Your task to perform on an android device: change timer sound Image 0: 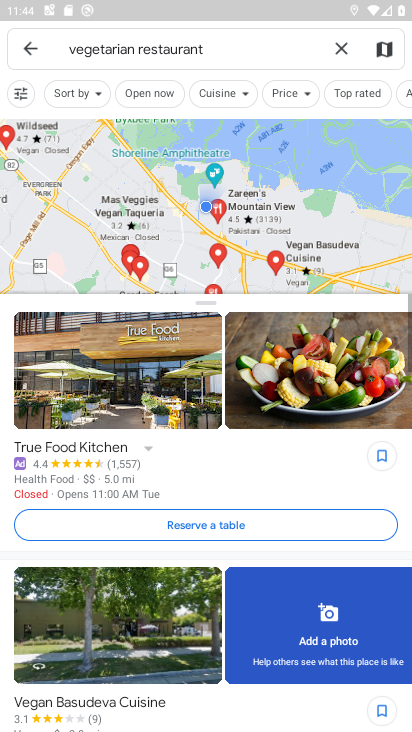
Step 0: press home button
Your task to perform on an android device: change timer sound Image 1: 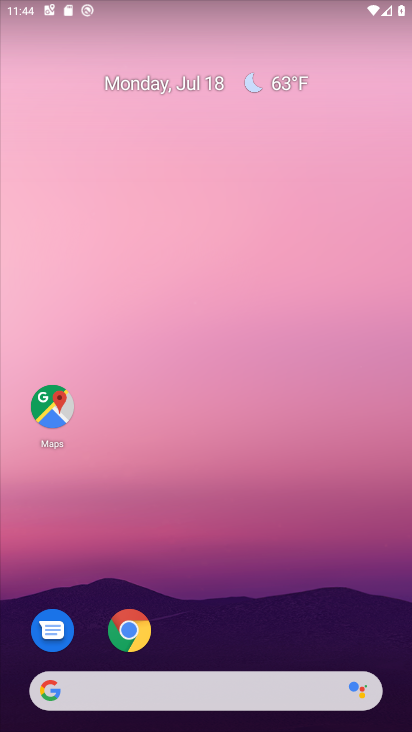
Step 1: drag from (201, 660) to (259, 141)
Your task to perform on an android device: change timer sound Image 2: 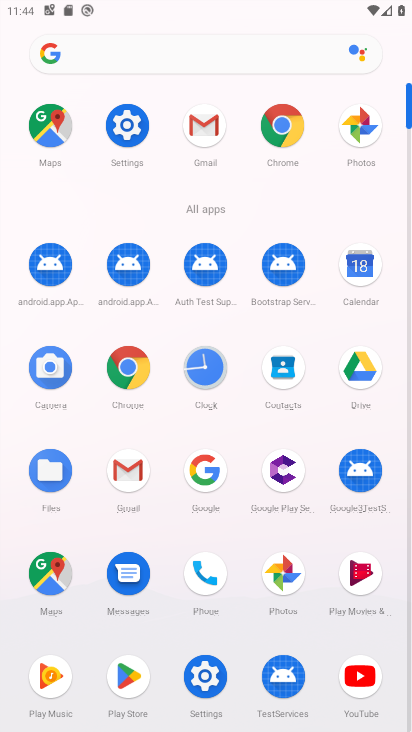
Step 2: click (214, 371)
Your task to perform on an android device: change timer sound Image 3: 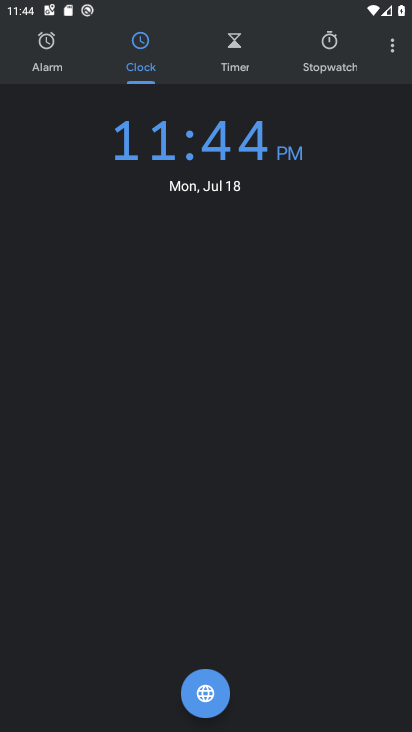
Step 3: click (392, 49)
Your task to perform on an android device: change timer sound Image 4: 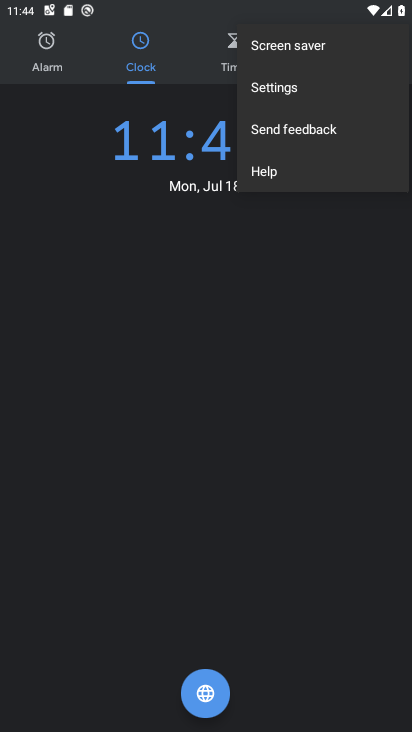
Step 4: click (286, 88)
Your task to perform on an android device: change timer sound Image 5: 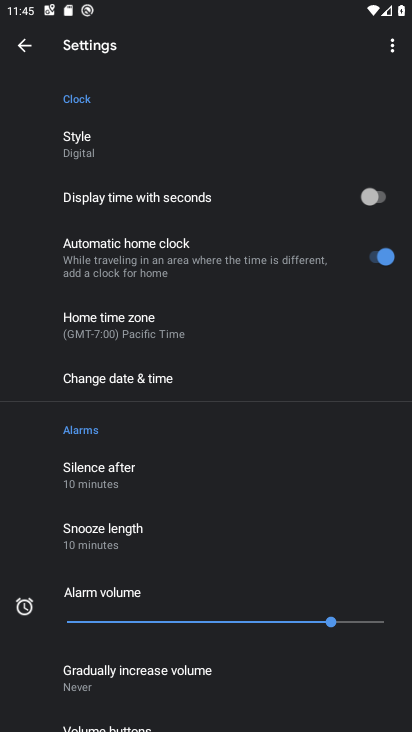
Step 5: drag from (173, 644) to (173, 205)
Your task to perform on an android device: change timer sound Image 6: 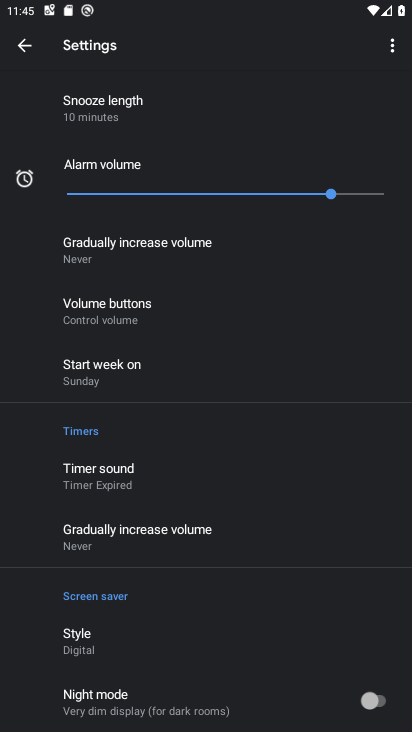
Step 6: click (106, 481)
Your task to perform on an android device: change timer sound Image 7: 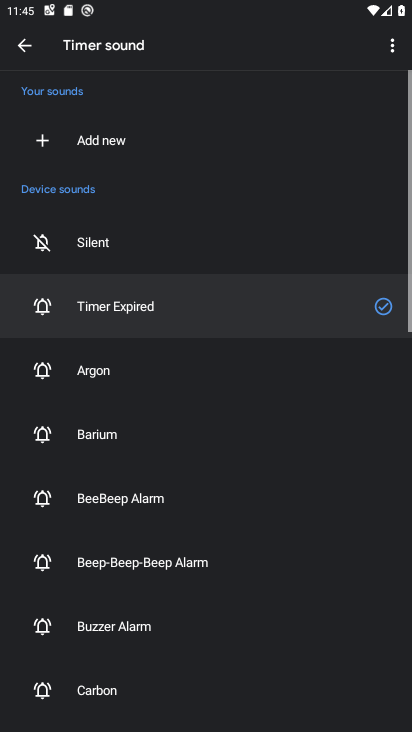
Step 7: click (82, 359)
Your task to perform on an android device: change timer sound Image 8: 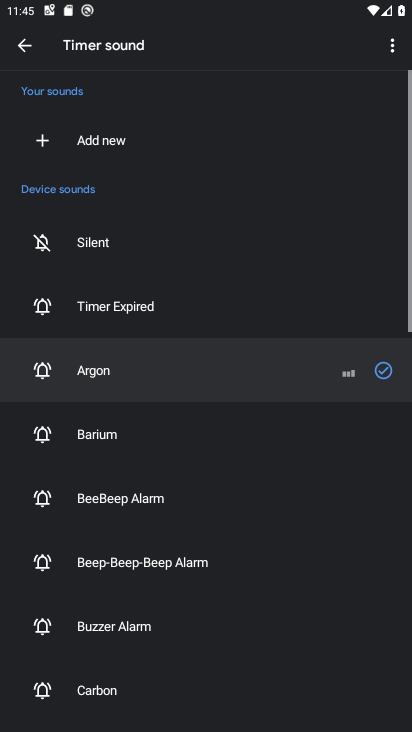
Step 8: task complete